Your task to perform on an android device: toggle improve location accuracy Image 0: 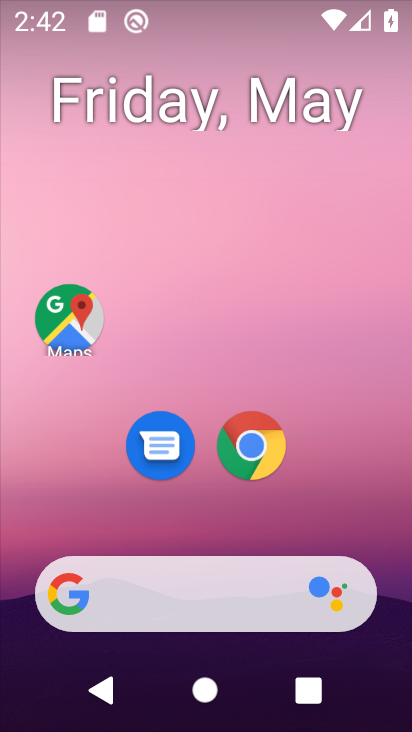
Step 0: drag from (181, 531) to (228, 230)
Your task to perform on an android device: toggle improve location accuracy Image 1: 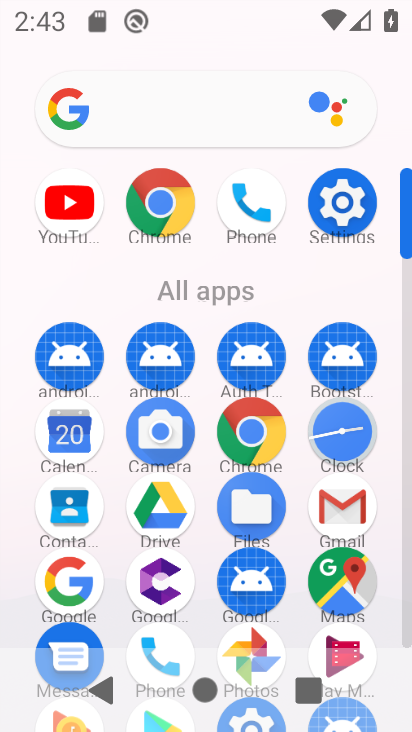
Step 1: click (345, 192)
Your task to perform on an android device: toggle improve location accuracy Image 2: 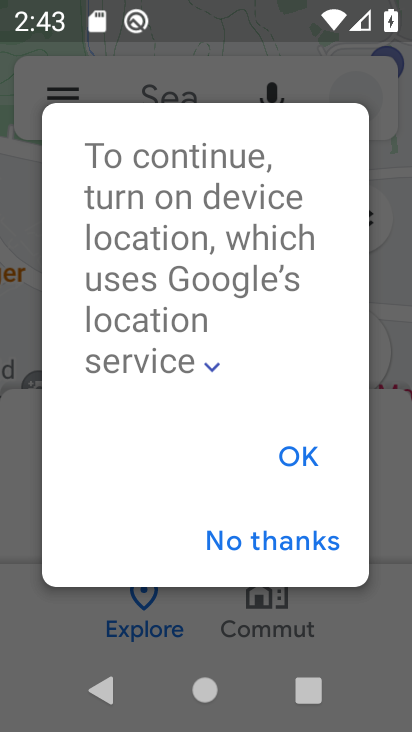
Step 2: press home button
Your task to perform on an android device: toggle improve location accuracy Image 3: 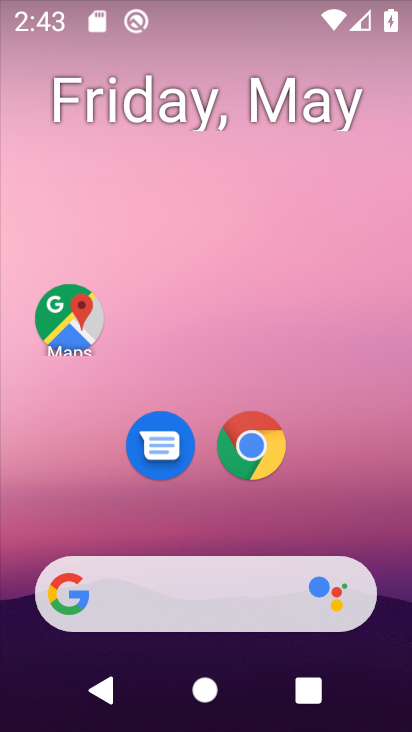
Step 3: drag from (263, 586) to (279, 22)
Your task to perform on an android device: toggle improve location accuracy Image 4: 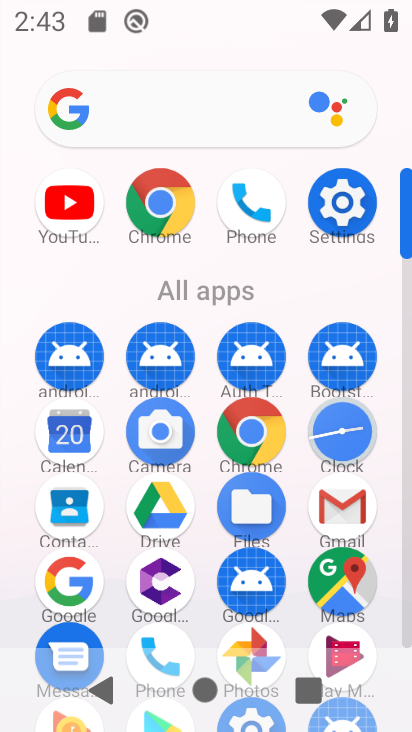
Step 4: click (313, 200)
Your task to perform on an android device: toggle improve location accuracy Image 5: 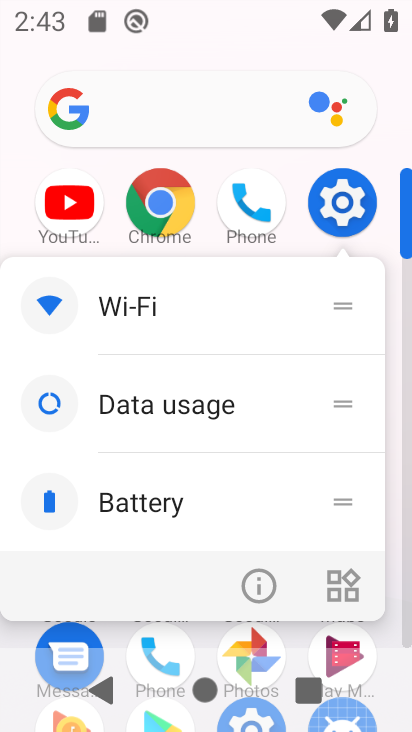
Step 5: click (257, 588)
Your task to perform on an android device: toggle improve location accuracy Image 6: 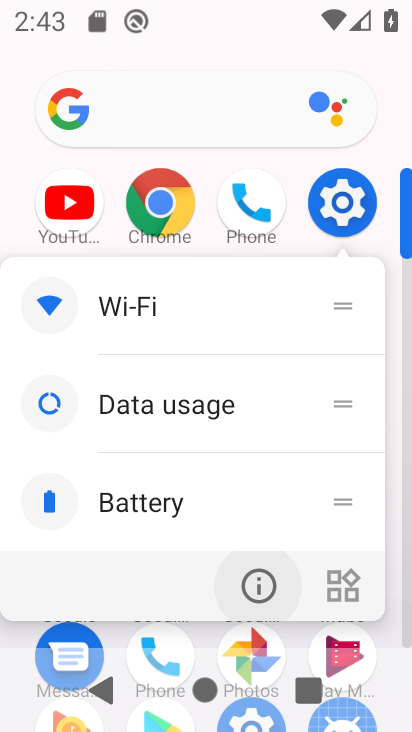
Step 6: click (257, 588)
Your task to perform on an android device: toggle improve location accuracy Image 7: 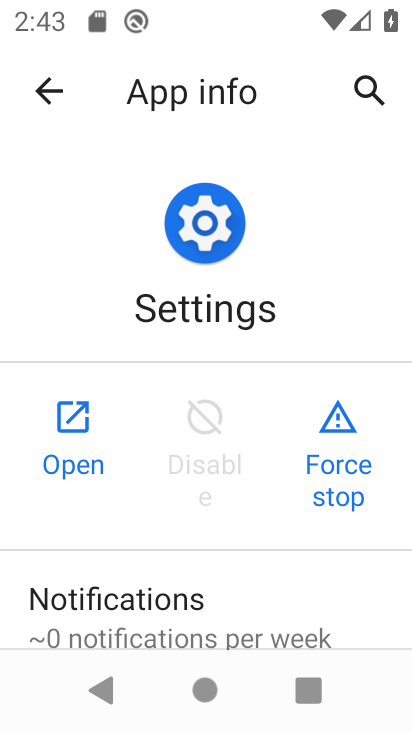
Step 7: click (77, 395)
Your task to perform on an android device: toggle improve location accuracy Image 8: 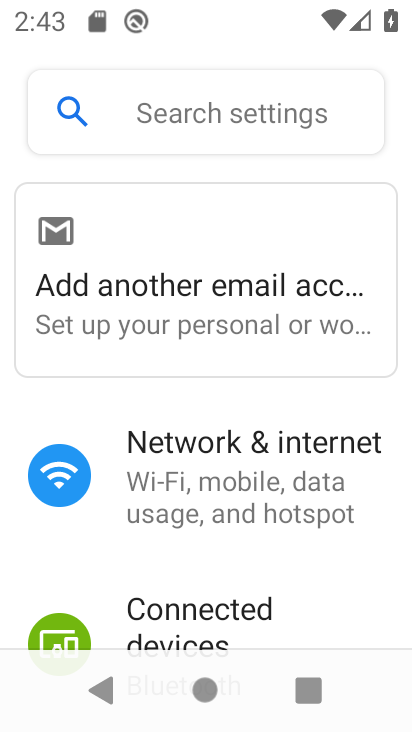
Step 8: drag from (235, 580) to (290, 188)
Your task to perform on an android device: toggle improve location accuracy Image 9: 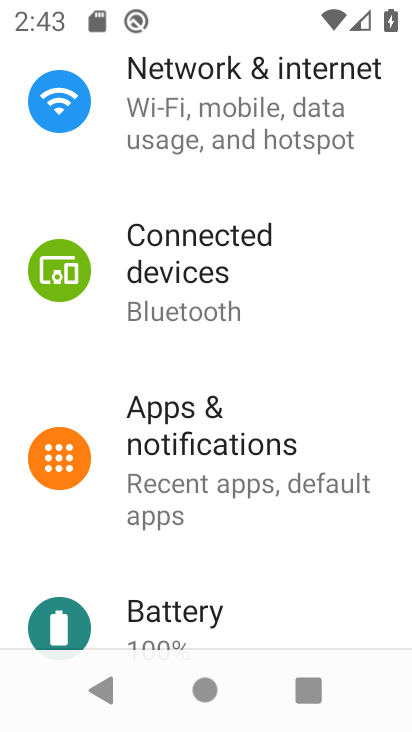
Step 9: drag from (258, 498) to (296, 133)
Your task to perform on an android device: toggle improve location accuracy Image 10: 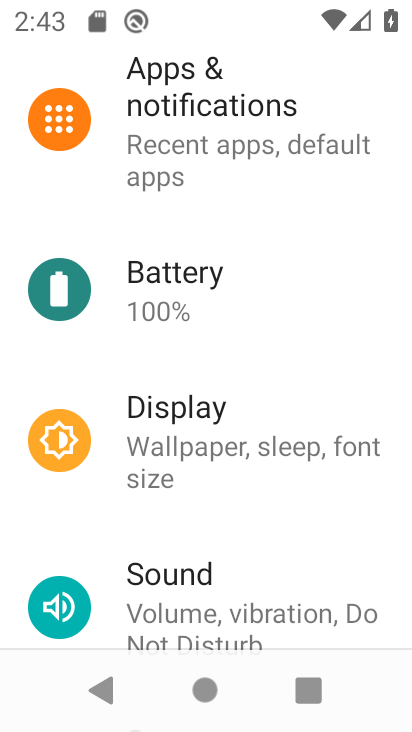
Step 10: drag from (215, 584) to (256, 187)
Your task to perform on an android device: toggle improve location accuracy Image 11: 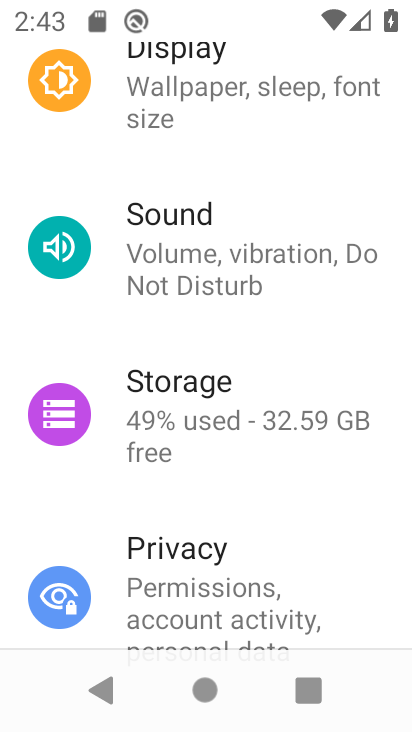
Step 11: drag from (241, 516) to (201, 26)
Your task to perform on an android device: toggle improve location accuracy Image 12: 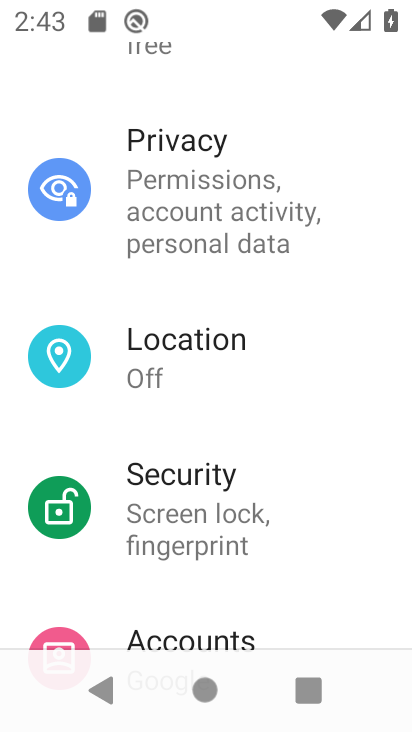
Step 12: drag from (177, 589) to (211, 301)
Your task to perform on an android device: toggle improve location accuracy Image 13: 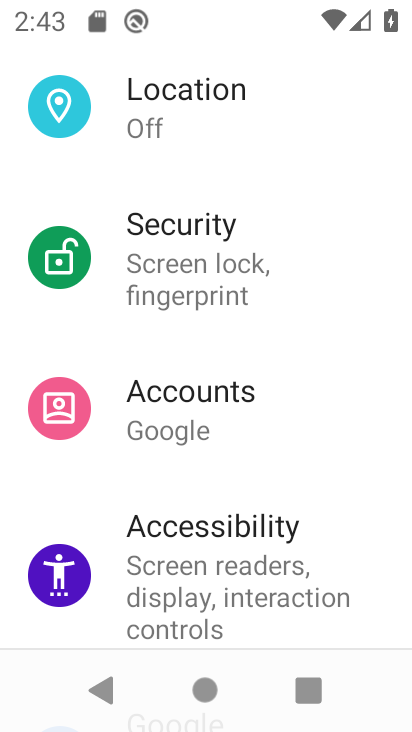
Step 13: drag from (227, 584) to (267, 286)
Your task to perform on an android device: toggle improve location accuracy Image 14: 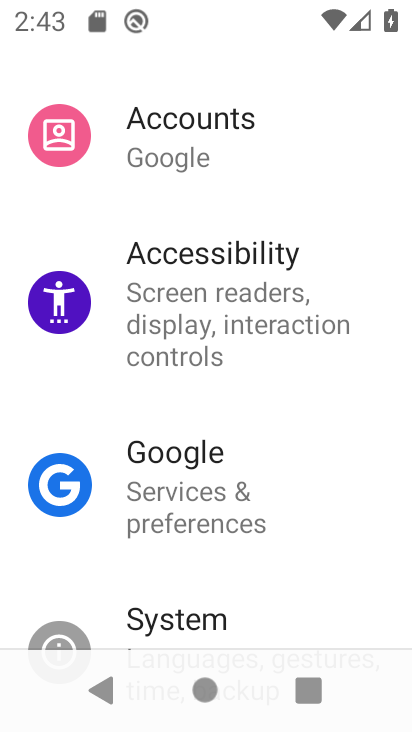
Step 14: drag from (229, 193) to (303, 720)
Your task to perform on an android device: toggle improve location accuracy Image 15: 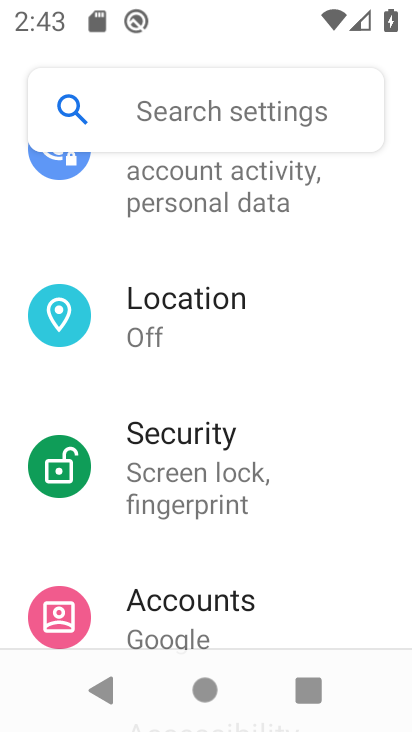
Step 15: click (207, 333)
Your task to perform on an android device: toggle improve location accuracy Image 16: 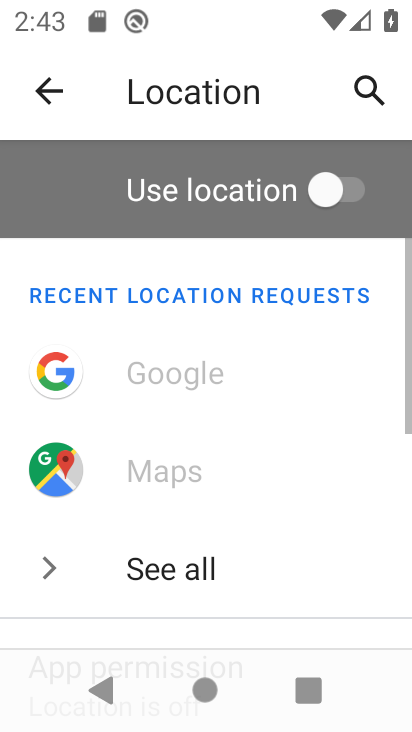
Step 16: drag from (250, 539) to (294, 185)
Your task to perform on an android device: toggle improve location accuracy Image 17: 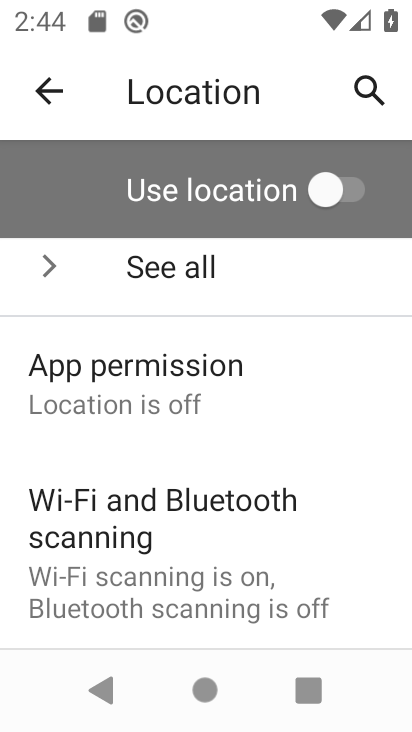
Step 17: drag from (191, 551) to (296, 200)
Your task to perform on an android device: toggle improve location accuracy Image 18: 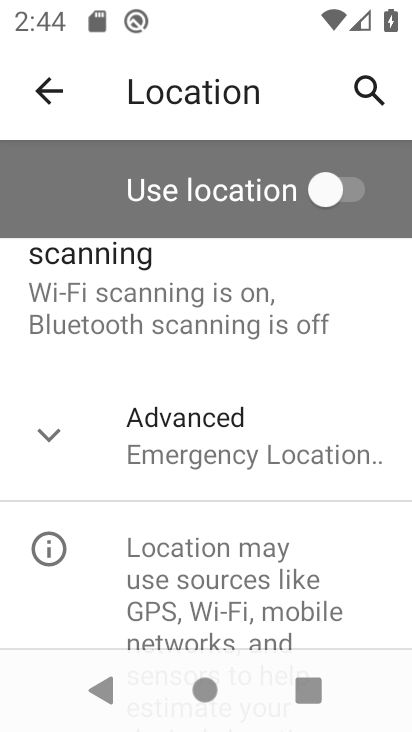
Step 18: click (160, 465)
Your task to perform on an android device: toggle improve location accuracy Image 19: 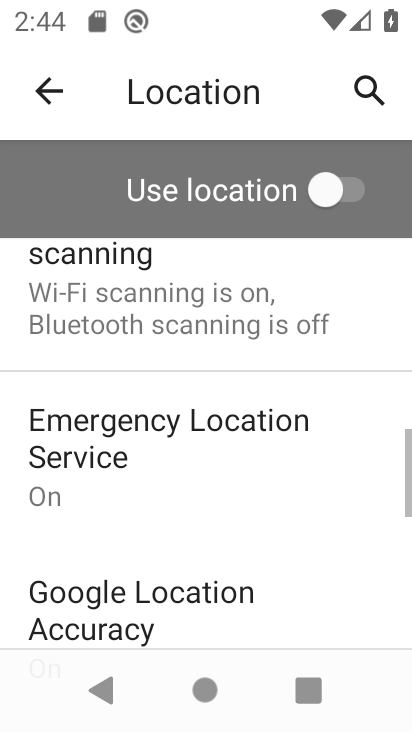
Step 19: drag from (243, 578) to (337, 242)
Your task to perform on an android device: toggle improve location accuracy Image 20: 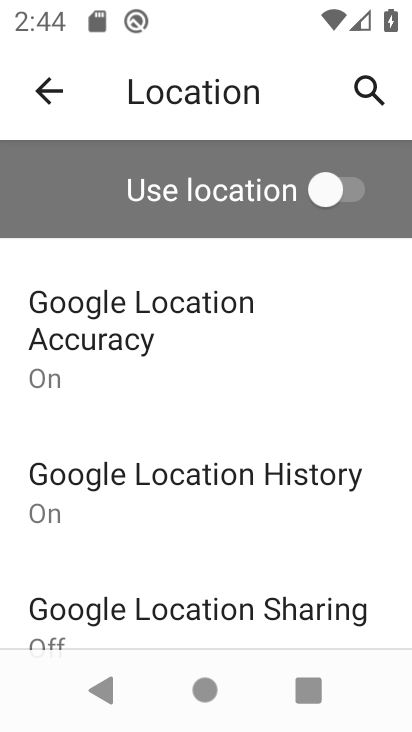
Step 20: drag from (181, 601) to (220, 324)
Your task to perform on an android device: toggle improve location accuracy Image 21: 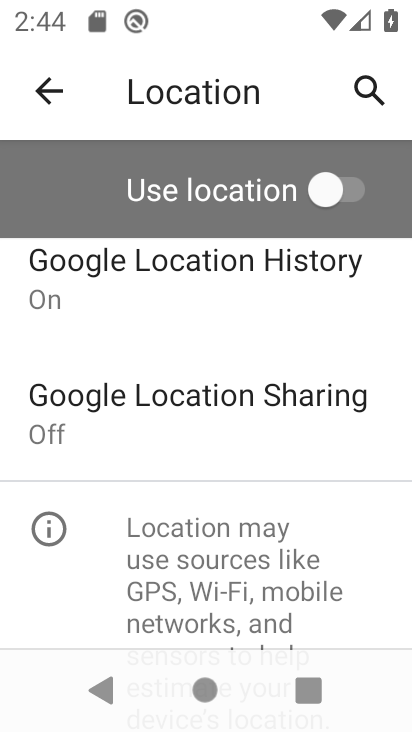
Step 21: drag from (272, 294) to (306, 585)
Your task to perform on an android device: toggle improve location accuracy Image 22: 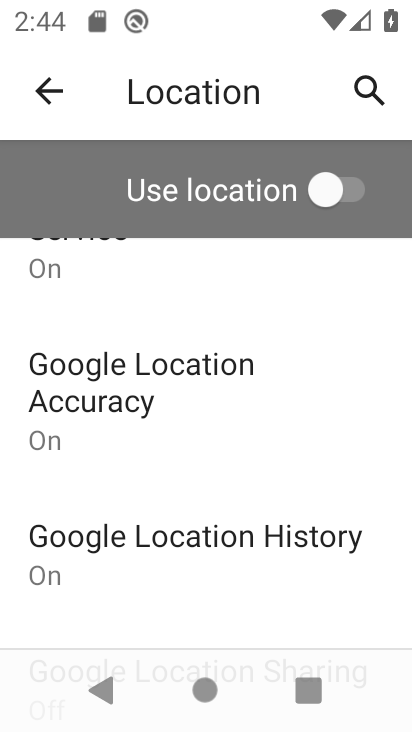
Step 22: click (111, 383)
Your task to perform on an android device: toggle improve location accuracy Image 23: 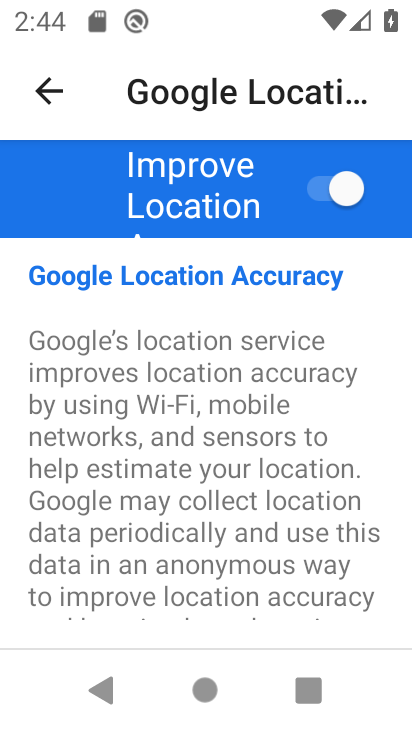
Step 23: click (339, 168)
Your task to perform on an android device: toggle improve location accuracy Image 24: 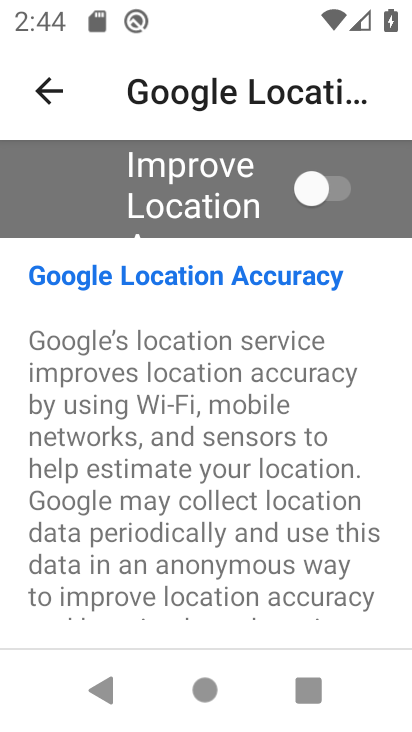
Step 24: task complete